Your task to perform on an android device: Go to settings Image 0: 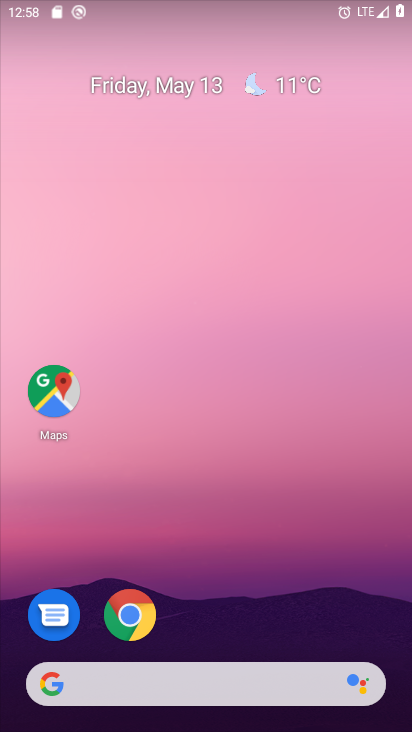
Step 0: drag from (259, 600) to (296, 45)
Your task to perform on an android device: Go to settings Image 1: 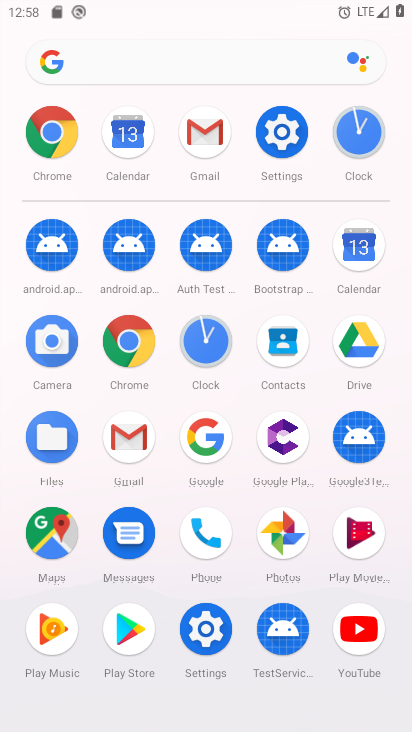
Step 1: click (289, 135)
Your task to perform on an android device: Go to settings Image 2: 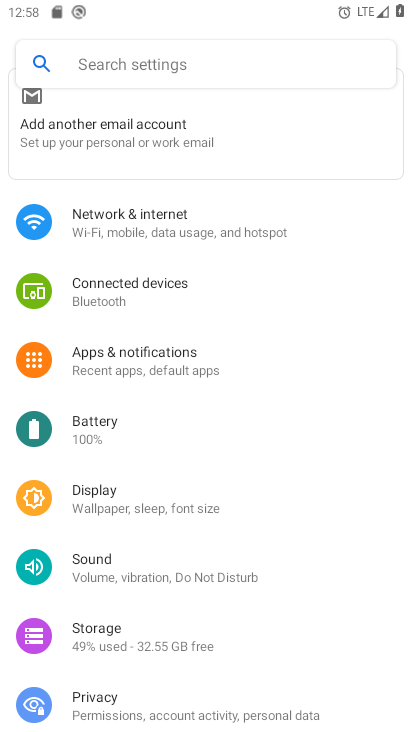
Step 2: task complete